Your task to perform on an android device: Go to internet settings Image 0: 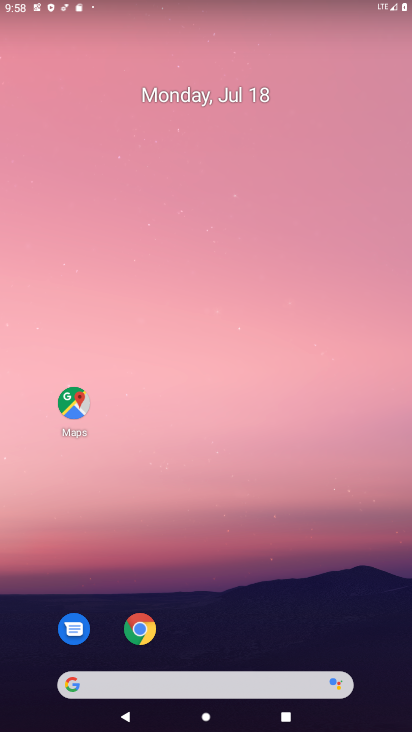
Step 0: drag from (187, 677) to (194, 7)
Your task to perform on an android device: Go to internet settings Image 1: 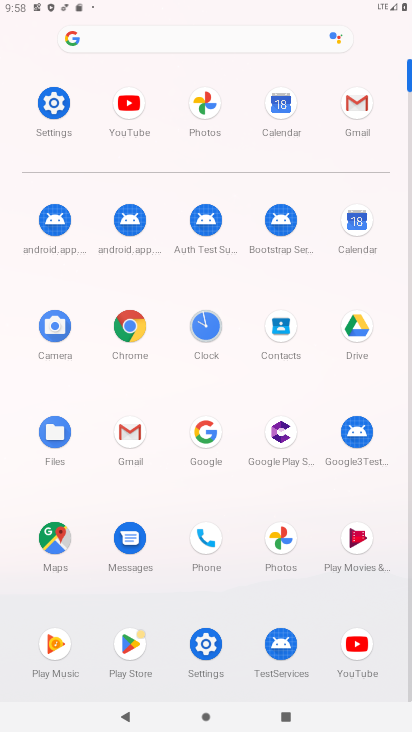
Step 1: click (62, 113)
Your task to perform on an android device: Go to internet settings Image 2: 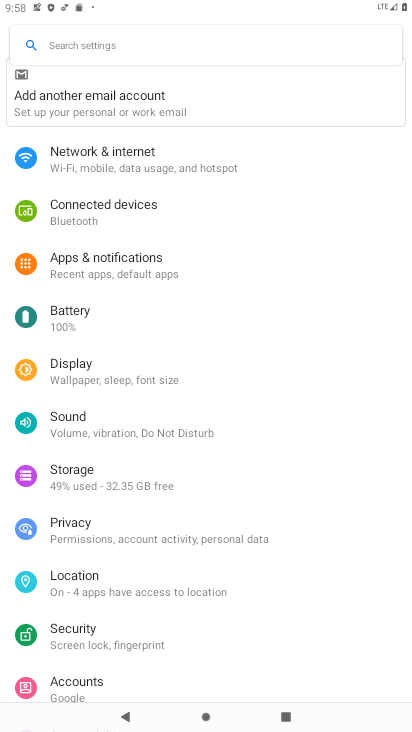
Step 2: click (134, 158)
Your task to perform on an android device: Go to internet settings Image 3: 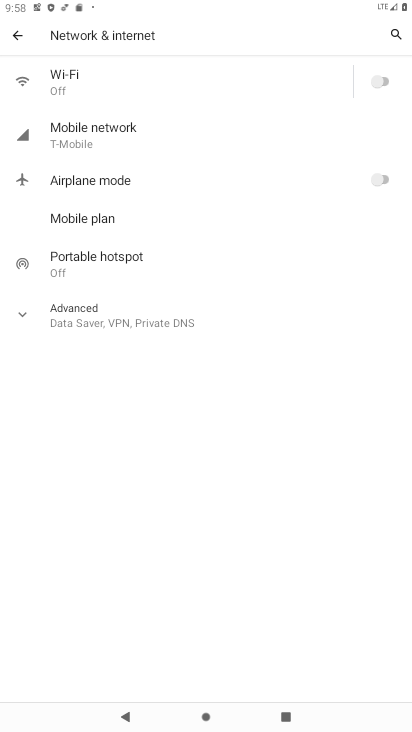
Step 3: task complete